Your task to perform on an android device: turn on translation in the chrome app Image 0: 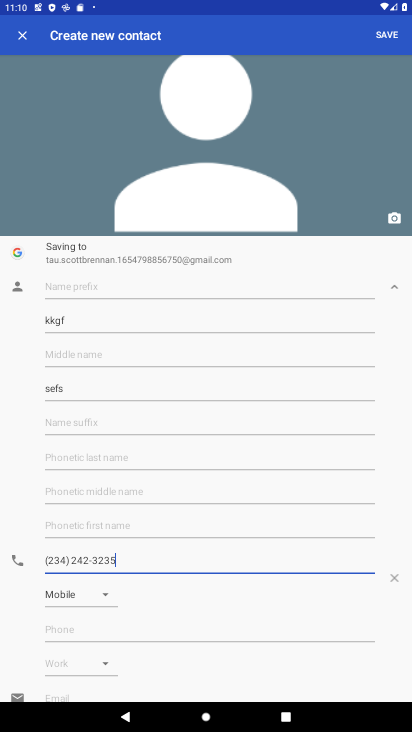
Step 0: click (259, 611)
Your task to perform on an android device: turn on translation in the chrome app Image 1: 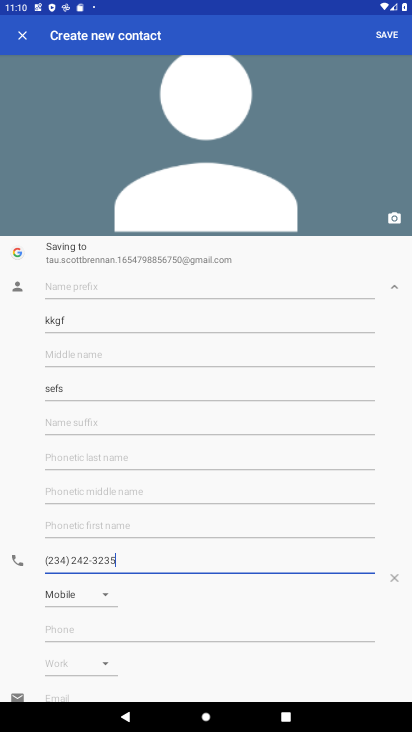
Step 1: press home button
Your task to perform on an android device: turn on translation in the chrome app Image 2: 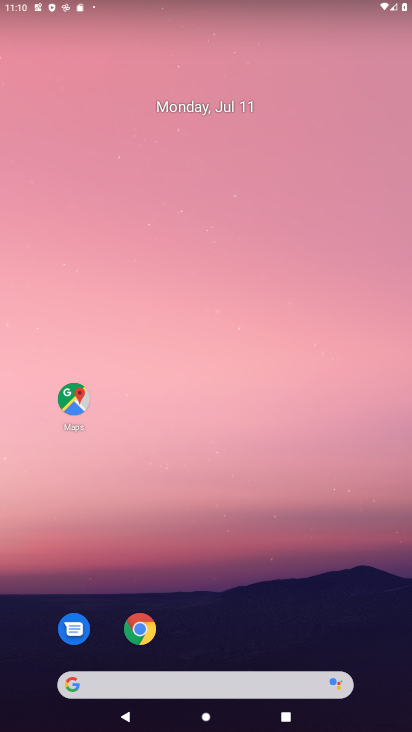
Step 2: click (148, 629)
Your task to perform on an android device: turn on translation in the chrome app Image 3: 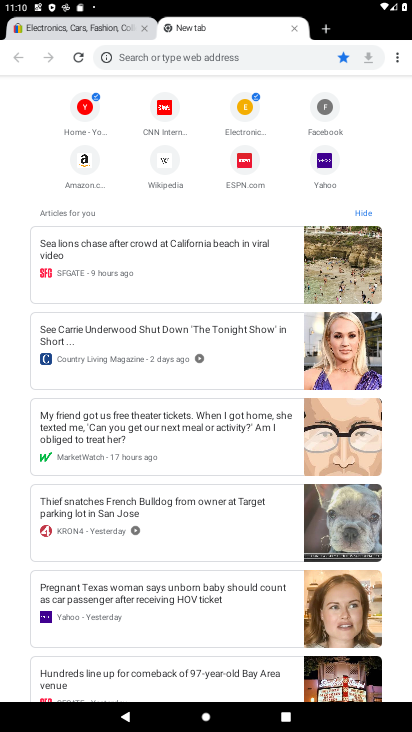
Step 3: click (393, 53)
Your task to perform on an android device: turn on translation in the chrome app Image 4: 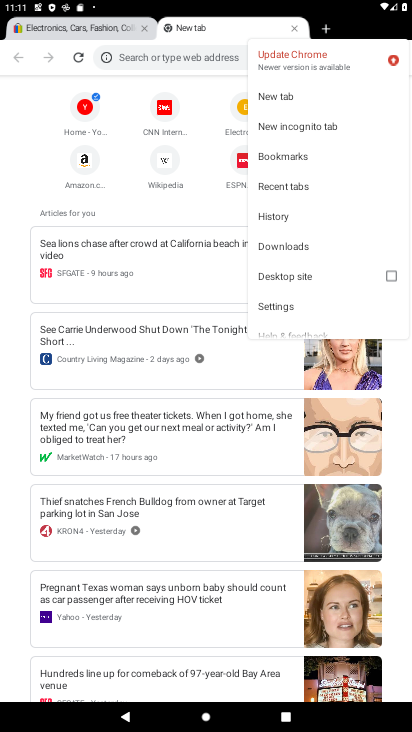
Step 4: click (281, 304)
Your task to perform on an android device: turn on translation in the chrome app Image 5: 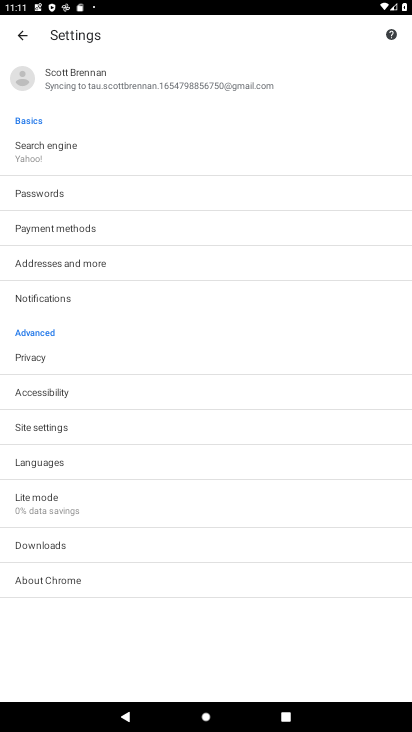
Step 5: click (128, 451)
Your task to perform on an android device: turn on translation in the chrome app Image 6: 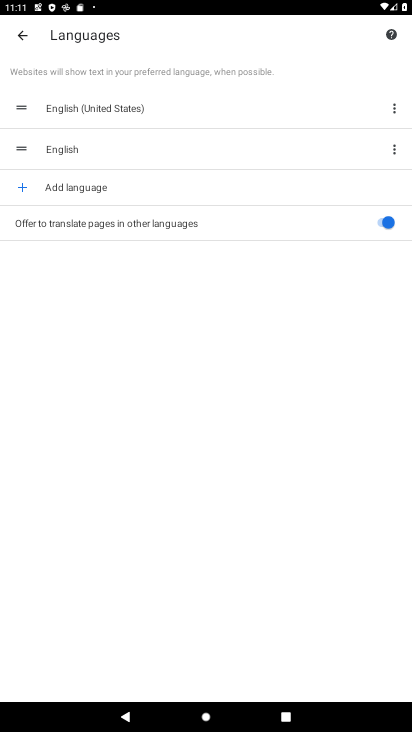
Step 6: task complete